Your task to perform on an android device: What's the weather going to be this weekend? Image 0: 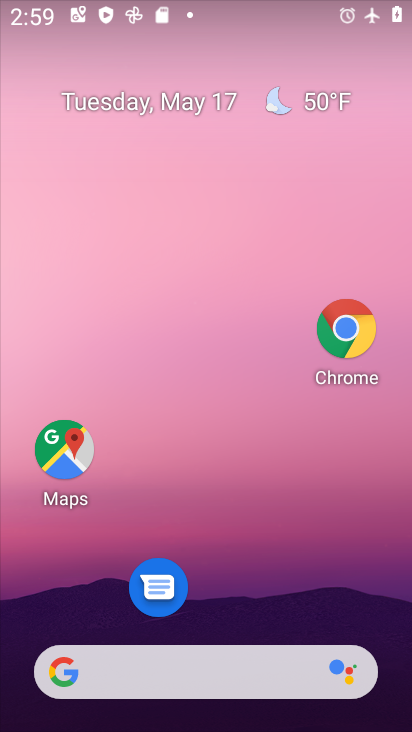
Step 0: click (227, 185)
Your task to perform on an android device: What's the weather going to be this weekend? Image 1: 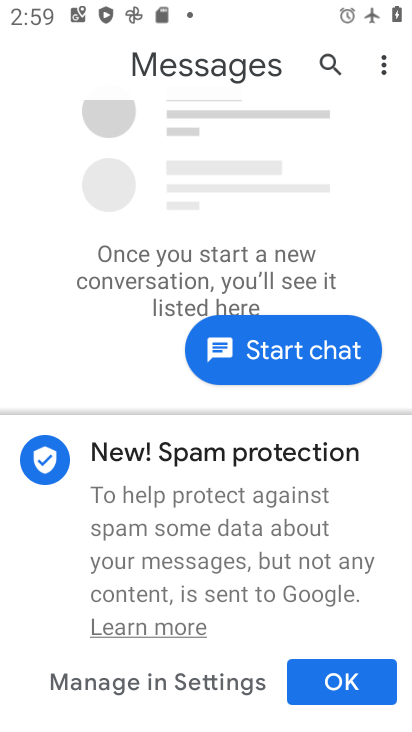
Step 1: press home button
Your task to perform on an android device: What's the weather going to be this weekend? Image 2: 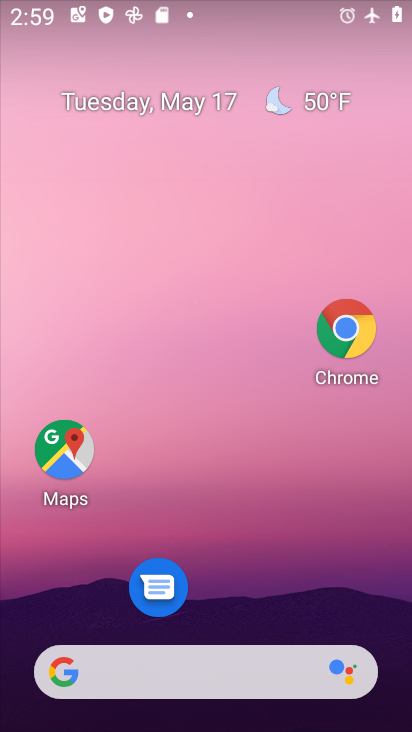
Step 2: drag from (280, 613) to (285, 278)
Your task to perform on an android device: What's the weather going to be this weekend? Image 3: 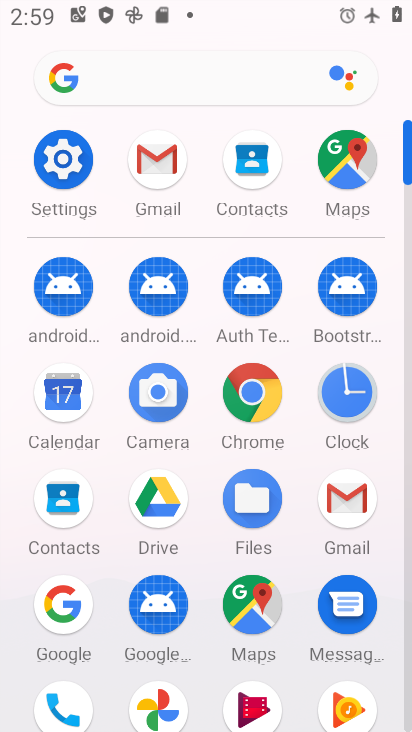
Step 3: click (240, 77)
Your task to perform on an android device: What's the weather going to be this weekend? Image 4: 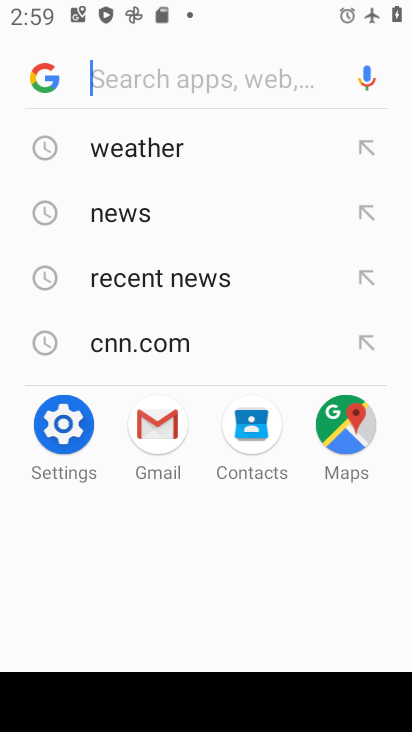
Step 4: click (137, 143)
Your task to perform on an android device: What's the weather going to be this weekend? Image 5: 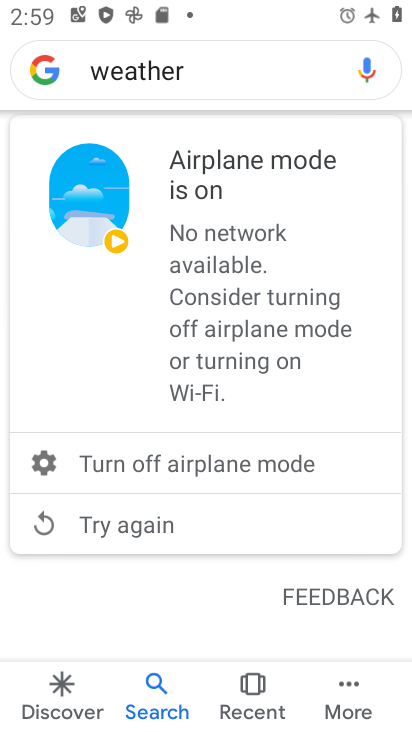
Step 5: task complete